Your task to perform on an android device: find snoozed emails in the gmail app Image 0: 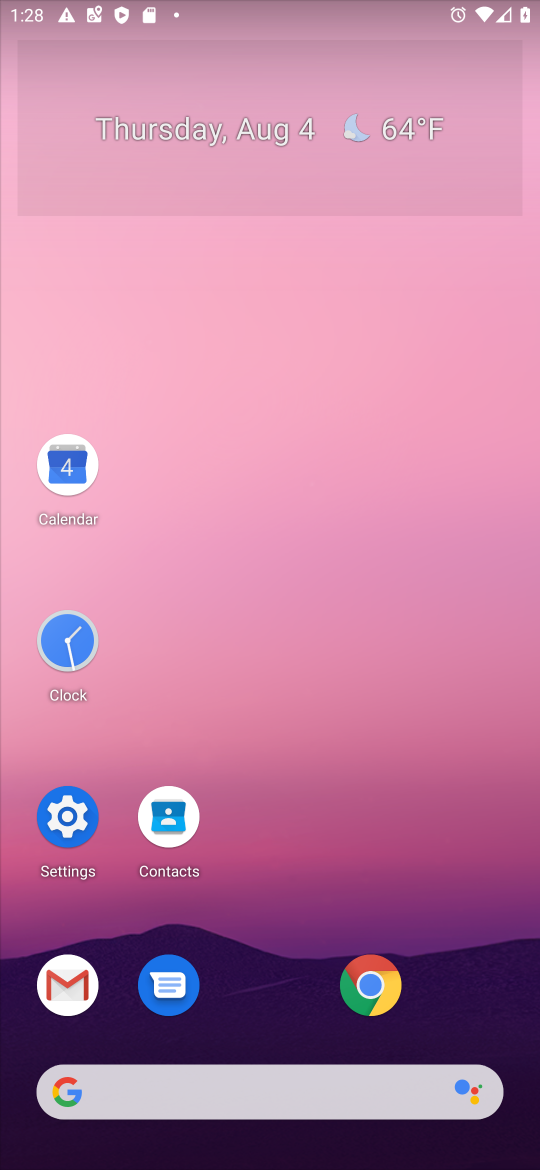
Step 0: click (63, 995)
Your task to perform on an android device: find snoozed emails in the gmail app Image 1: 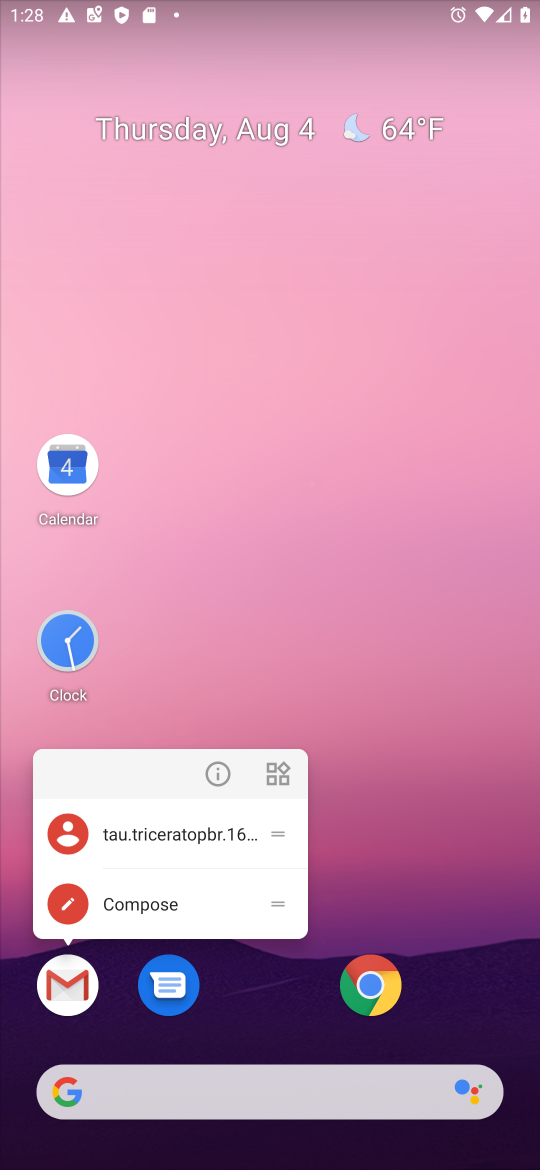
Step 1: click (72, 980)
Your task to perform on an android device: find snoozed emails in the gmail app Image 2: 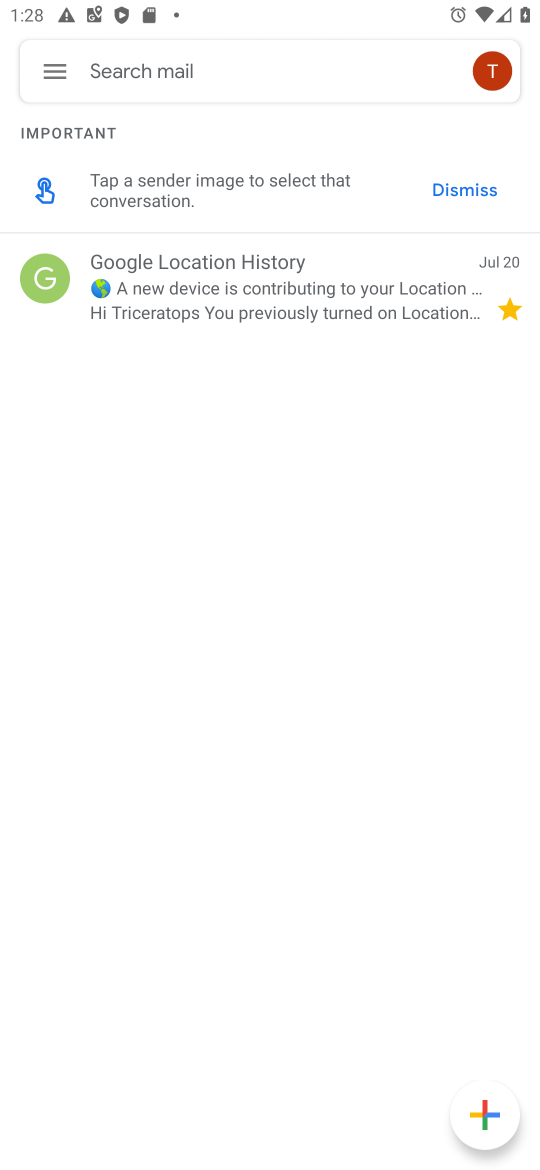
Step 2: click (49, 69)
Your task to perform on an android device: find snoozed emails in the gmail app Image 3: 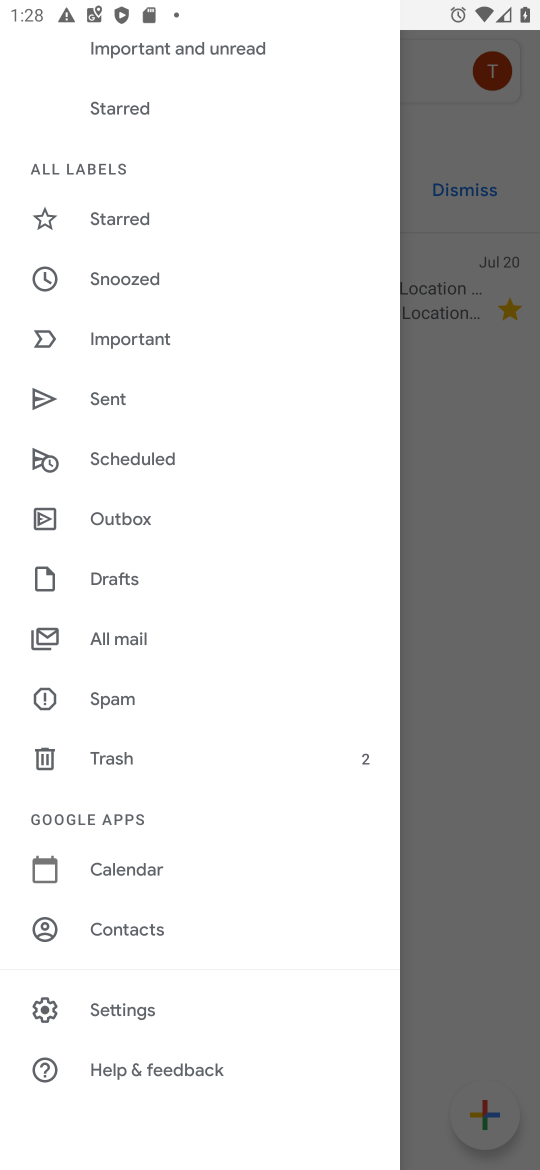
Step 3: click (119, 282)
Your task to perform on an android device: find snoozed emails in the gmail app Image 4: 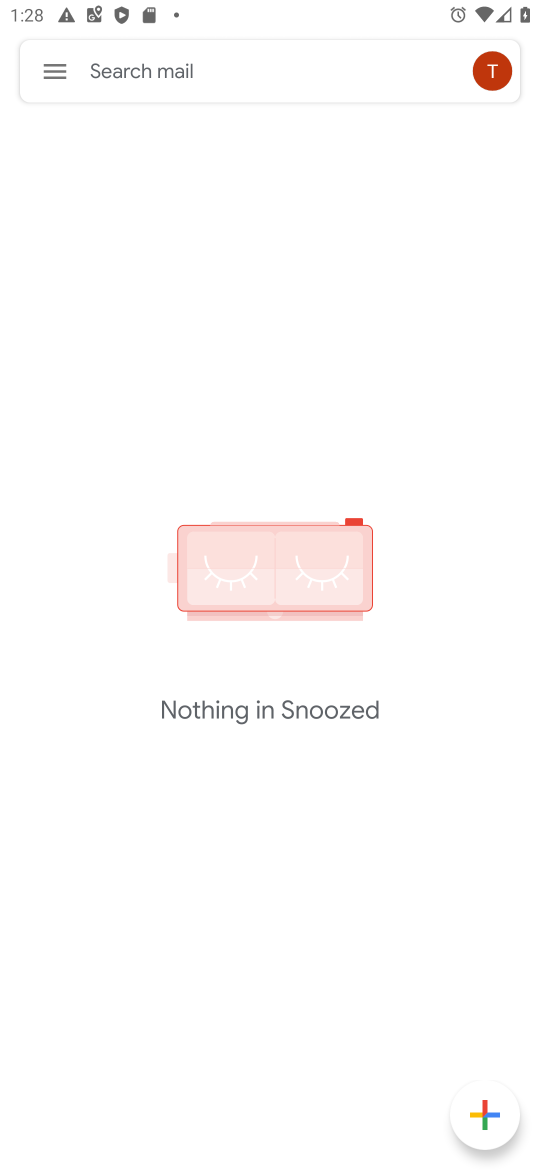
Step 4: task complete